Your task to perform on an android device: Search for Mexican restaurants on Maps Image 0: 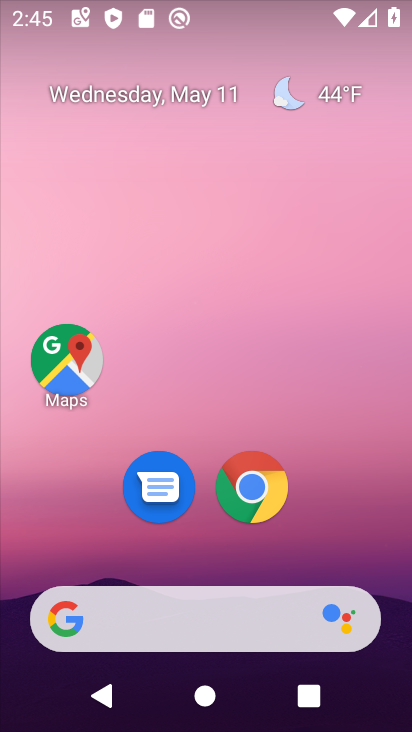
Step 0: click (59, 349)
Your task to perform on an android device: Search for Mexican restaurants on Maps Image 1: 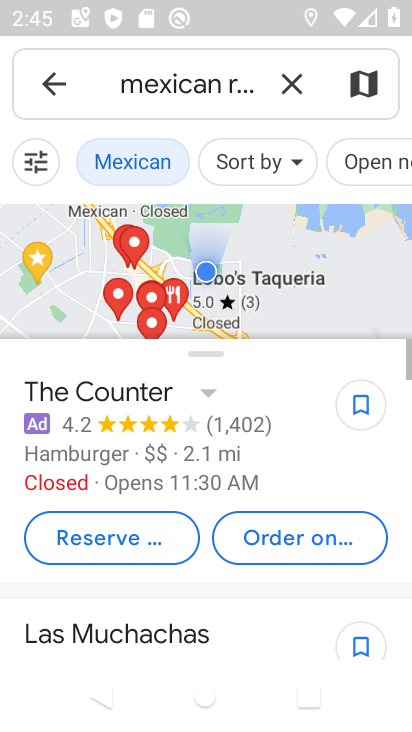
Step 1: task complete